Your task to perform on an android device: Open calendar and show me the first week of next month Image 0: 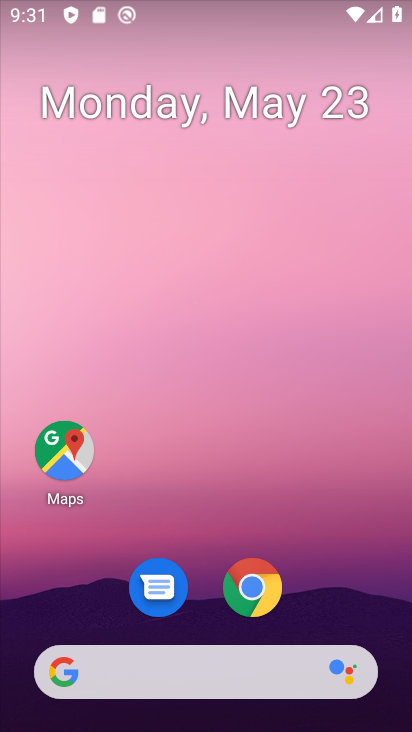
Step 0: drag from (333, 562) to (249, 60)
Your task to perform on an android device: Open calendar and show me the first week of next month Image 1: 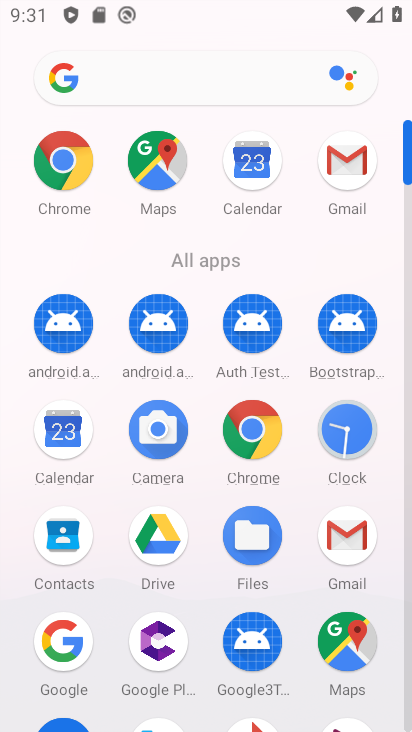
Step 1: click (64, 434)
Your task to perform on an android device: Open calendar and show me the first week of next month Image 2: 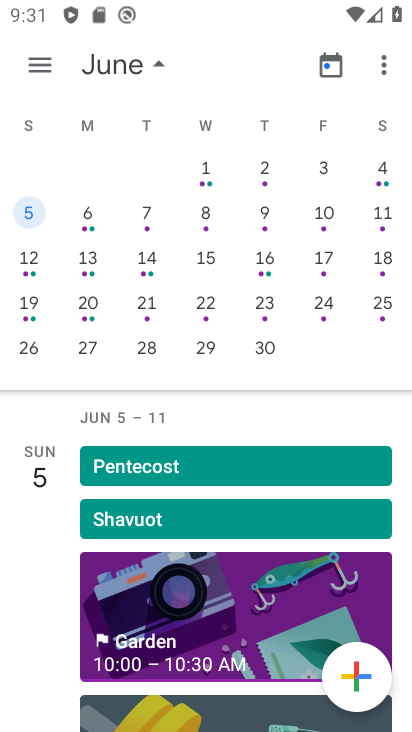
Step 2: task complete